Your task to perform on an android device: turn off javascript in the chrome app Image 0: 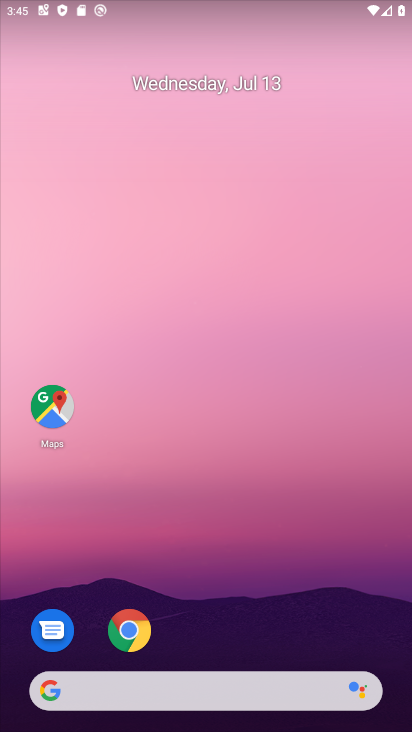
Step 0: drag from (316, 585) to (316, 137)
Your task to perform on an android device: turn off javascript in the chrome app Image 1: 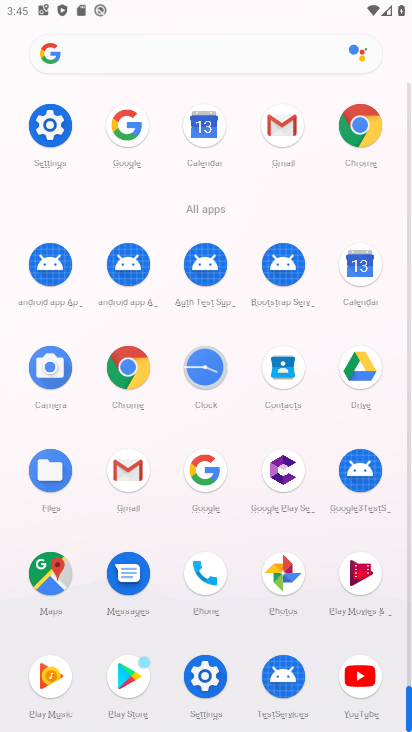
Step 1: click (363, 123)
Your task to perform on an android device: turn off javascript in the chrome app Image 2: 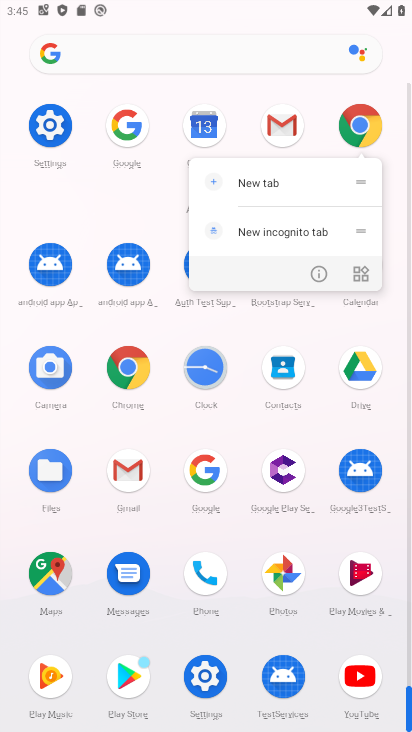
Step 2: click (363, 122)
Your task to perform on an android device: turn off javascript in the chrome app Image 3: 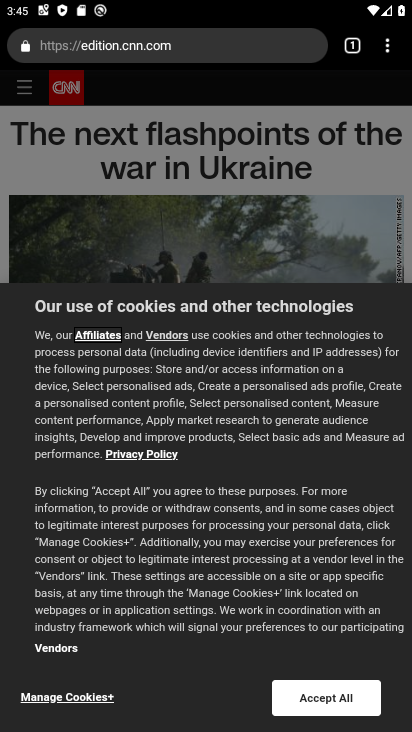
Step 3: drag from (389, 51) to (223, 505)
Your task to perform on an android device: turn off javascript in the chrome app Image 4: 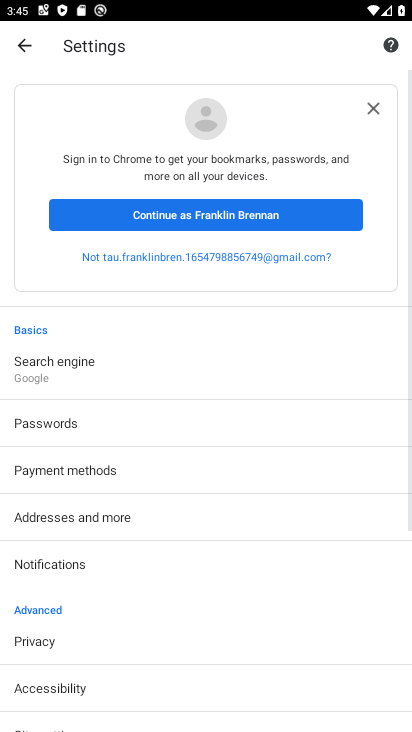
Step 4: drag from (168, 643) to (186, 131)
Your task to perform on an android device: turn off javascript in the chrome app Image 5: 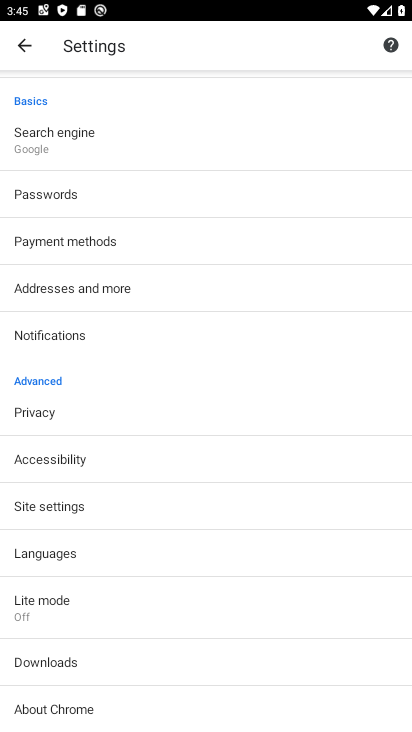
Step 5: click (133, 522)
Your task to perform on an android device: turn off javascript in the chrome app Image 6: 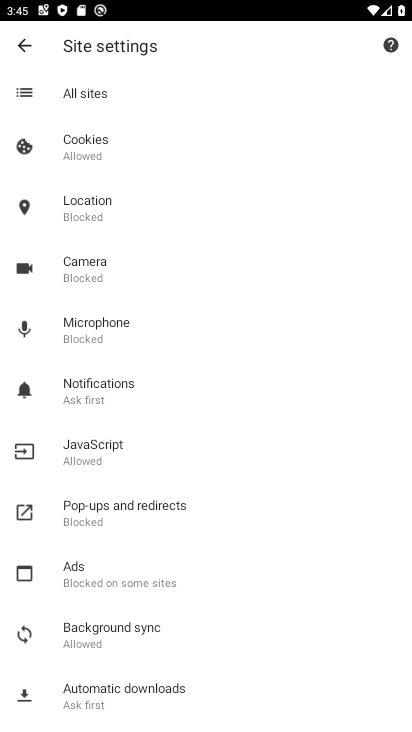
Step 6: click (79, 447)
Your task to perform on an android device: turn off javascript in the chrome app Image 7: 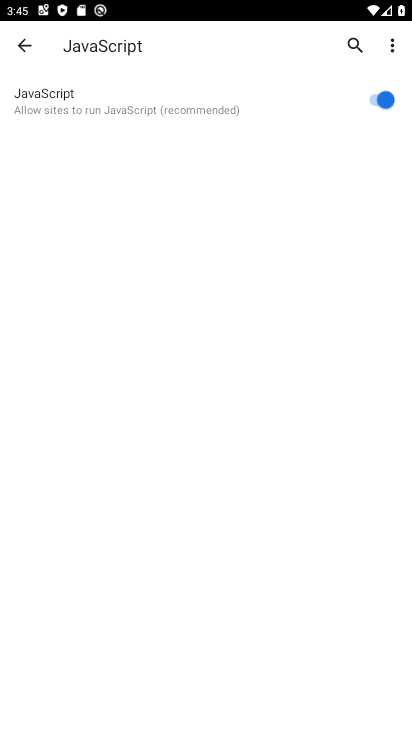
Step 7: click (369, 92)
Your task to perform on an android device: turn off javascript in the chrome app Image 8: 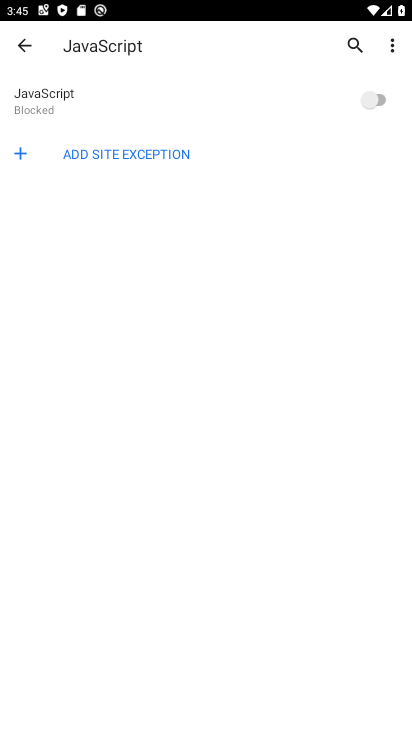
Step 8: task complete